Your task to perform on an android device: open device folders in google photos Image 0: 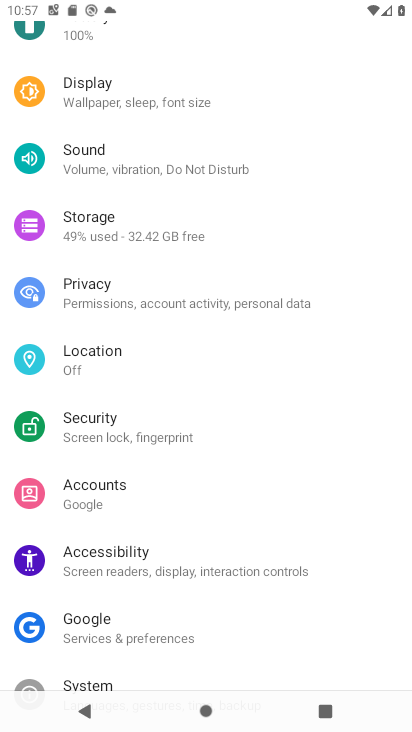
Step 0: press home button
Your task to perform on an android device: open device folders in google photos Image 1: 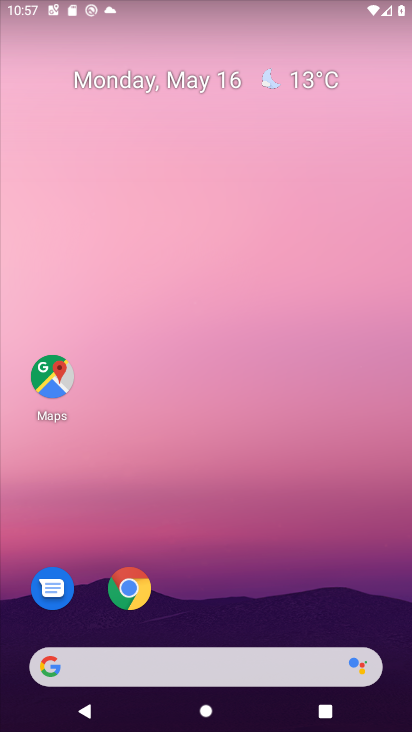
Step 1: drag from (199, 608) to (209, 58)
Your task to perform on an android device: open device folders in google photos Image 2: 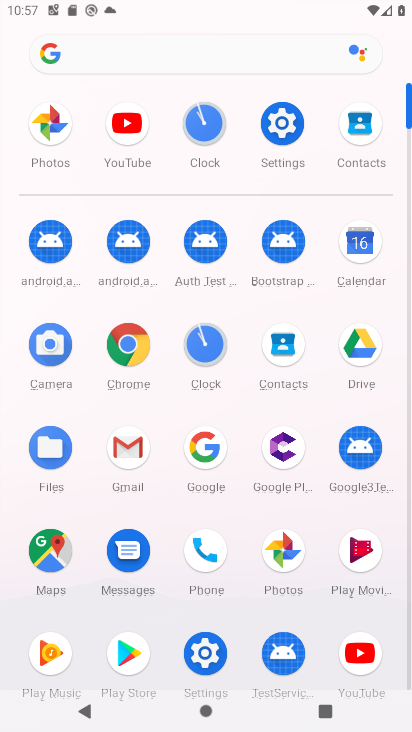
Step 2: click (283, 544)
Your task to perform on an android device: open device folders in google photos Image 3: 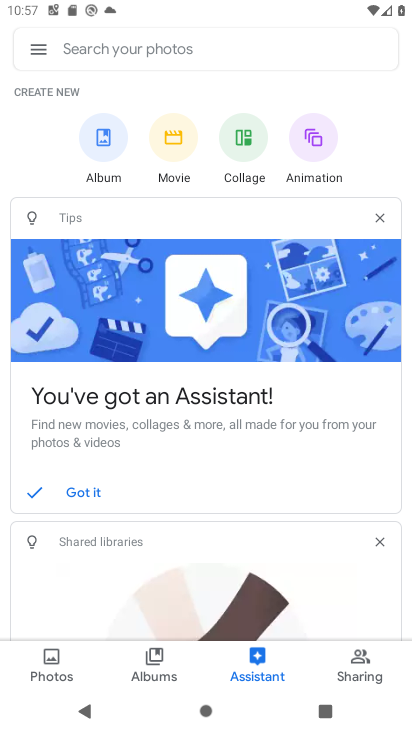
Step 3: click (37, 50)
Your task to perform on an android device: open device folders in google photos Image 4: 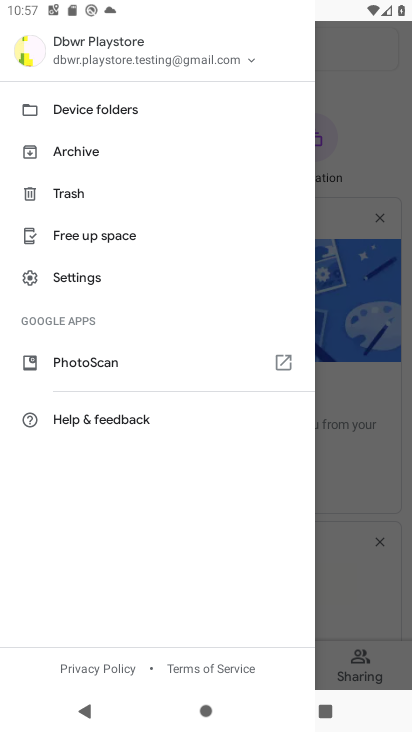
Step 4: click (147, 102)
Your task to perform on an android device: open device folders in google photos Image 5: 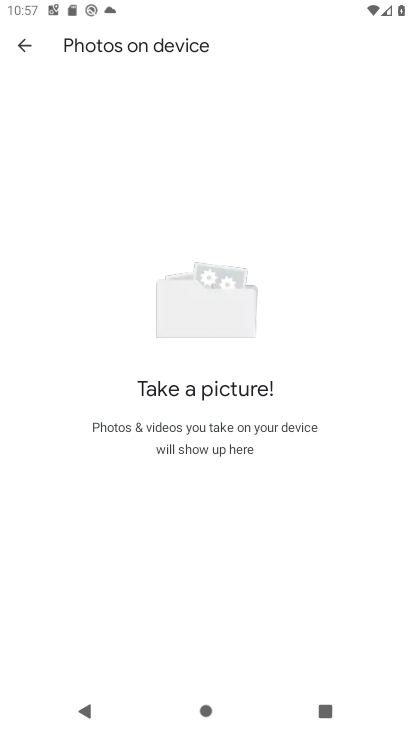
Step 5: task complete